Your task to perform on an android device: What's the weather like in Hong Kong? Image 0: 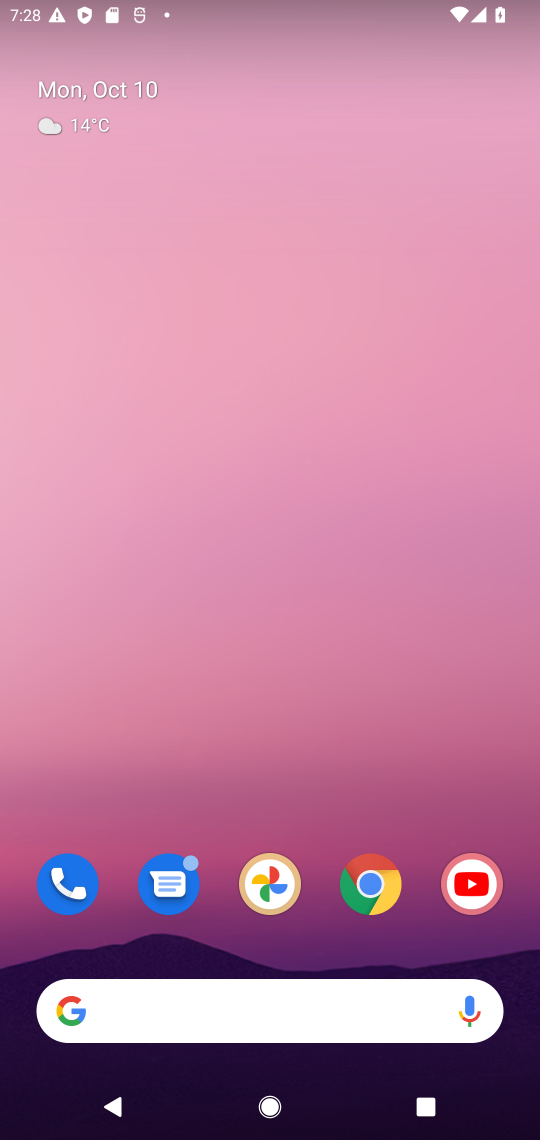
Step 0: click (387, 897)
Your task to perform on an android device: What's the weather like in Hong Kong? Image 1: 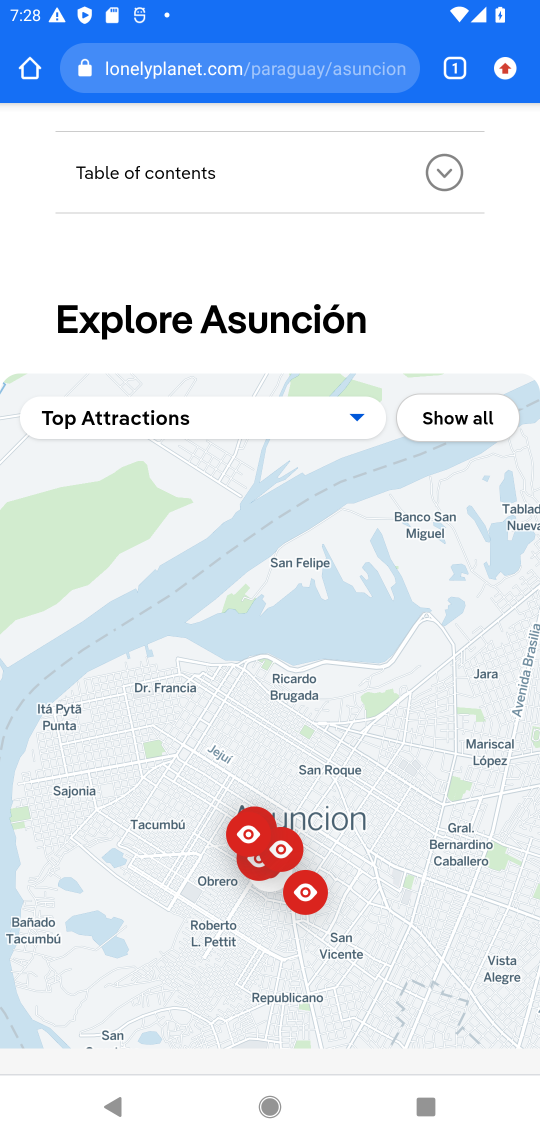
Step 1: click (181, 72)
Your task to perform on an android device: What's the weather like in Hong Kong? Image 2: 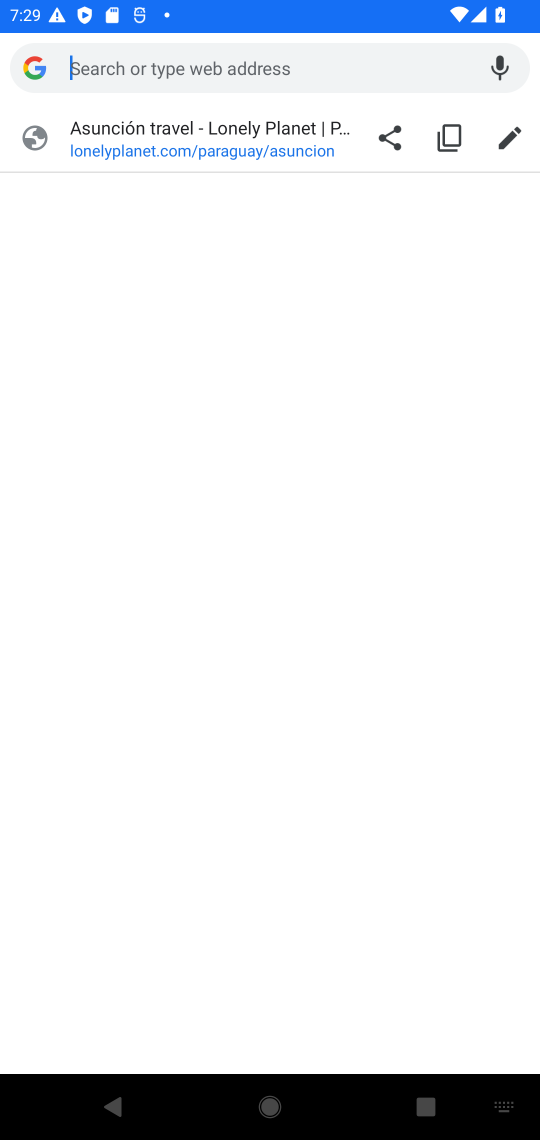
Step 2: type "What's the weather like in Hong Kong?"
Your task to perform on an android device: What's the weather like in Hong Kong? Image 3: 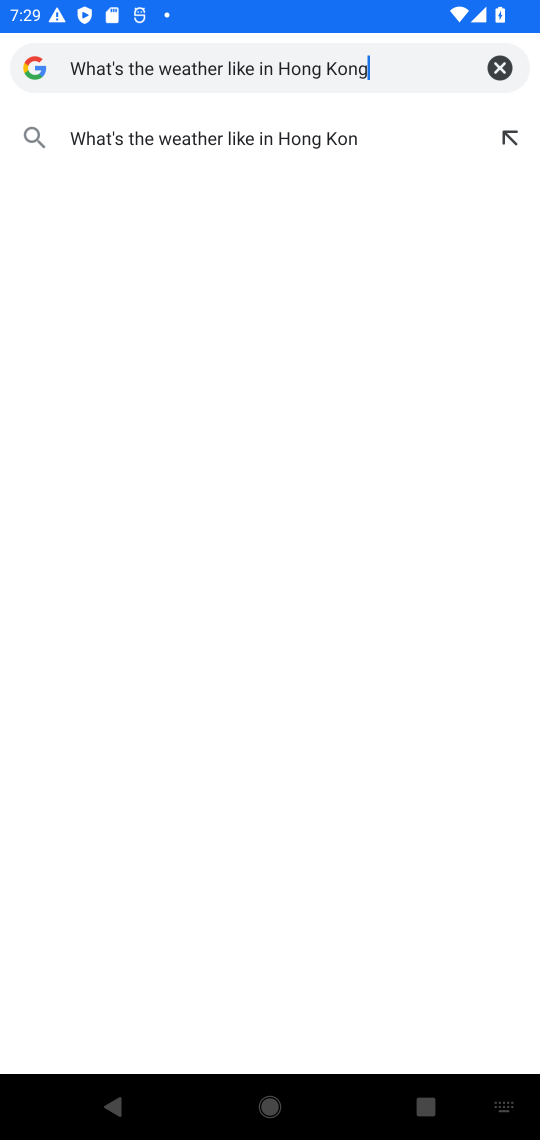
Step 3: type ""
Your task to perform on an android device: What's the weather like in Hong Kong? Image 4: 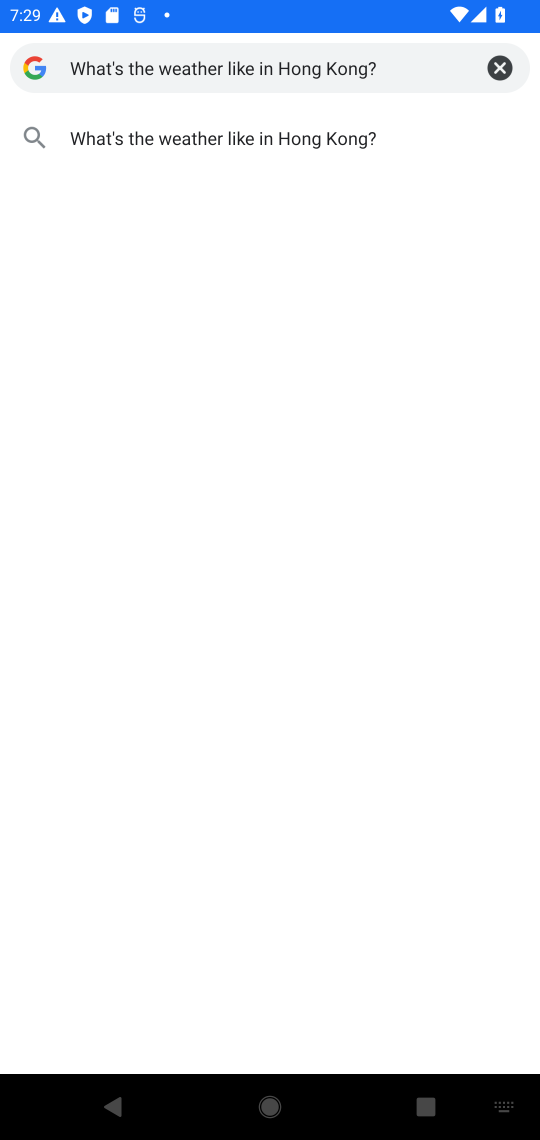
Step 4: click (181, 119)
Your task to perform on an android device: What's the weather like in Hong Kong? Image 5: 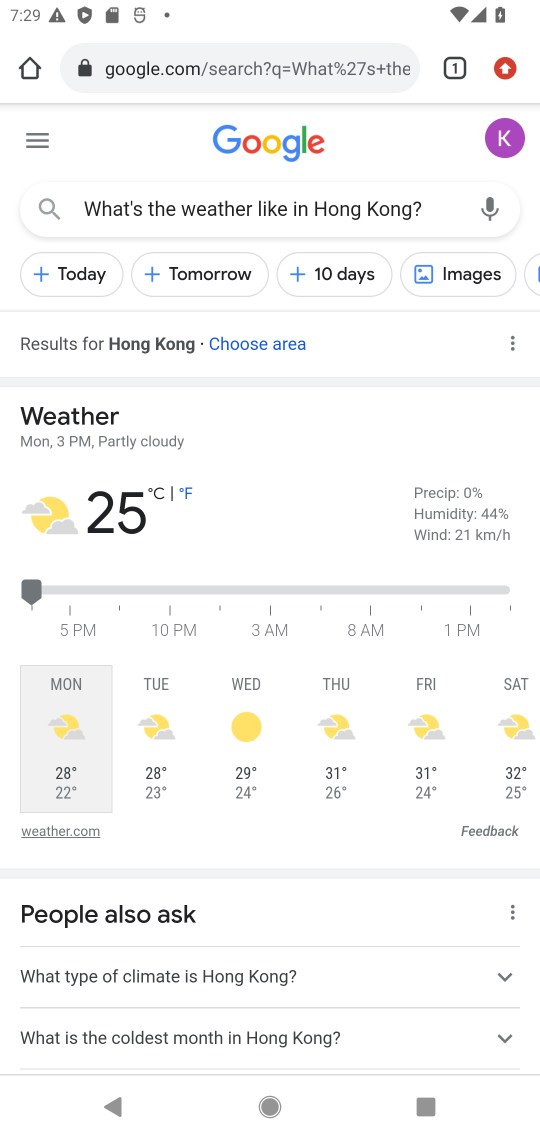
Step 5: click (35, 594)
Your task to perform on an android device: What's the weather like in Hong Kong? Image 6: 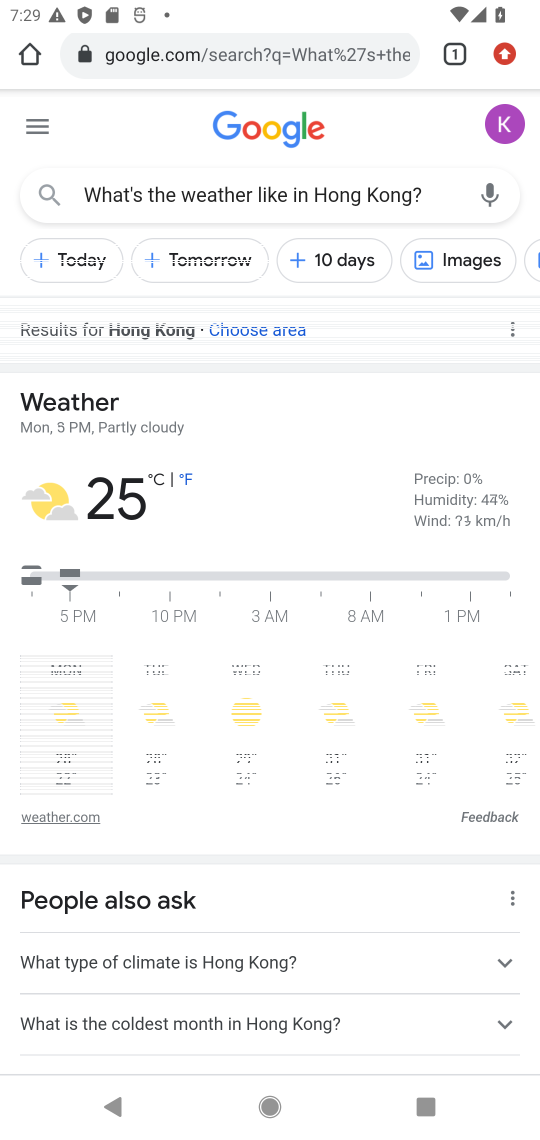
Step 6: drag from (312, 857) to (290, 257)
Your task to perform on an android device: What's the weather like in Hong Kong? Image 7: 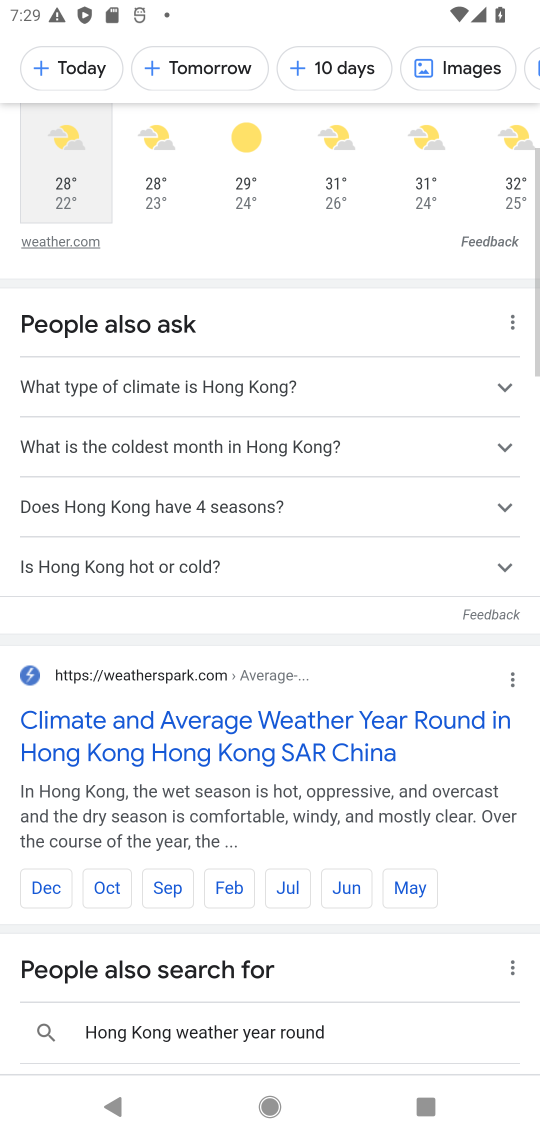
Step 7: drag from (354, 806) to (339, 233)
Your task to perform on an android device: What's the weather like in Hong Kong? Image 8: 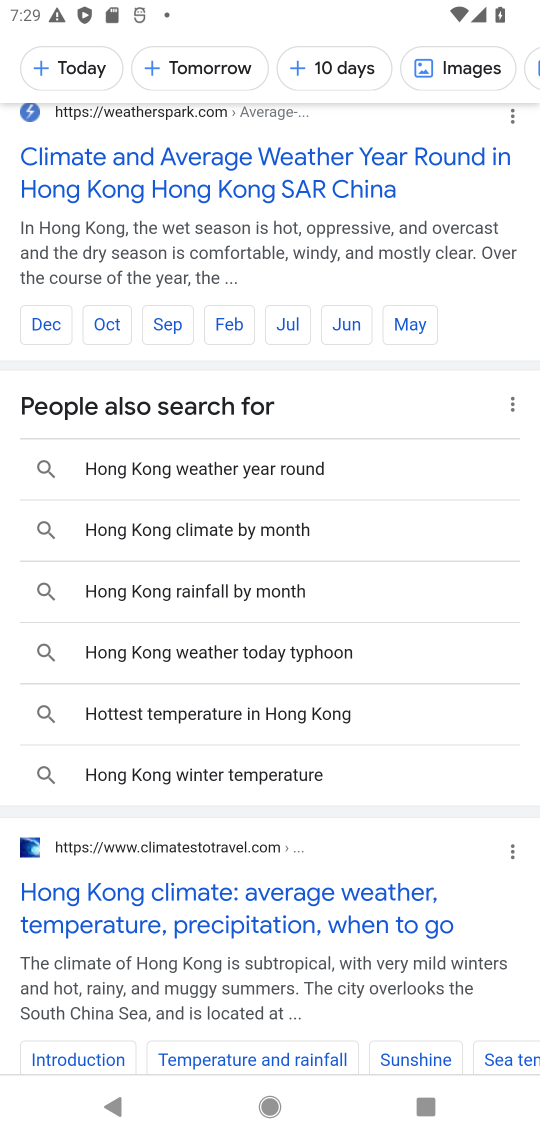
Step 8: click (222, 177)
Your task to perform on an android device: What's the weather like in Hong Kong? Image 9: 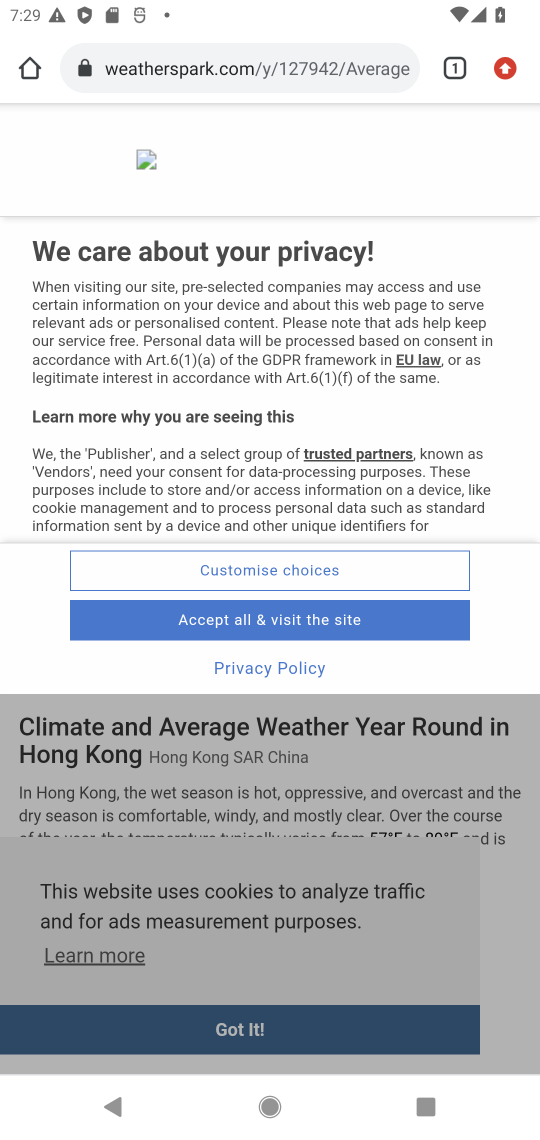
Step 9: task complete